Your task to perform on an android device: set default search engine in the chrome app Image 0: 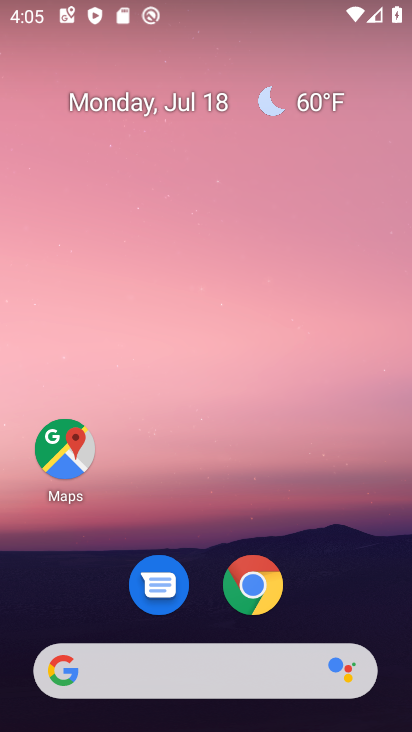
Step 0: click (273, 580)
Your task to perform on an android device: set default search engine in the chrome app Image 1: 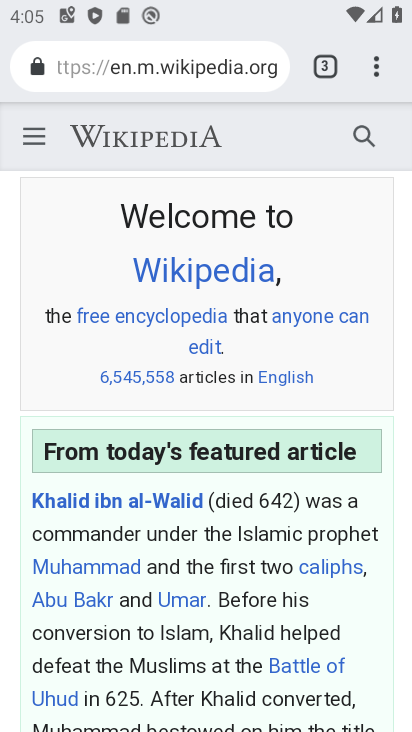
Step 1: click (379, 62)
Your task to perform on an android device: set default search engine in the chrome app Image 2: 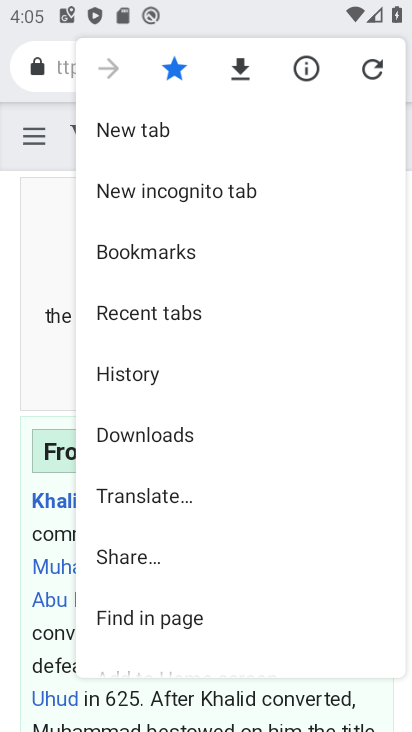
Step 2: drag from (226, 553) to (272, 178)
Your task to perform on an android device: set default search engine in the chrome app Image 3: 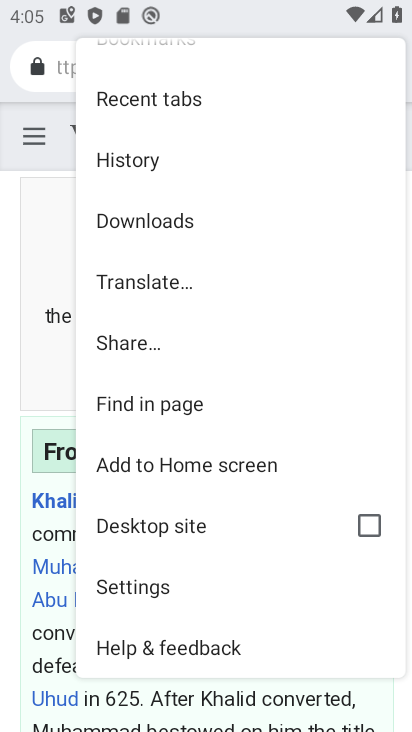
Step 3: click (160, 582)
Your task to perform on an android device: set default search engine in the chrome app Image 4: 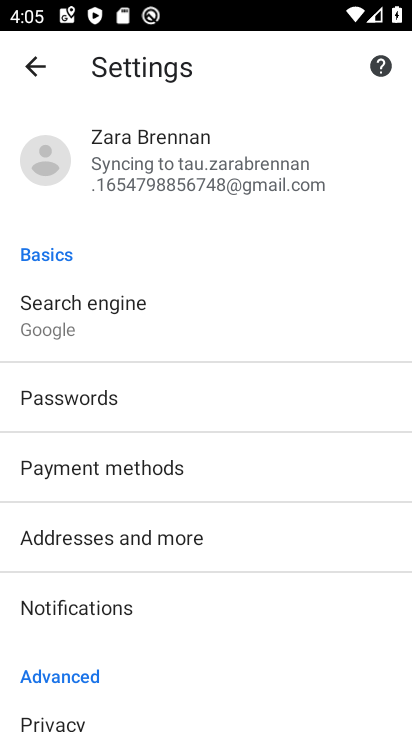
Step 4: click (121, 307)
Your task to perform on an android device: set default search engine in the chrome app Image 5: 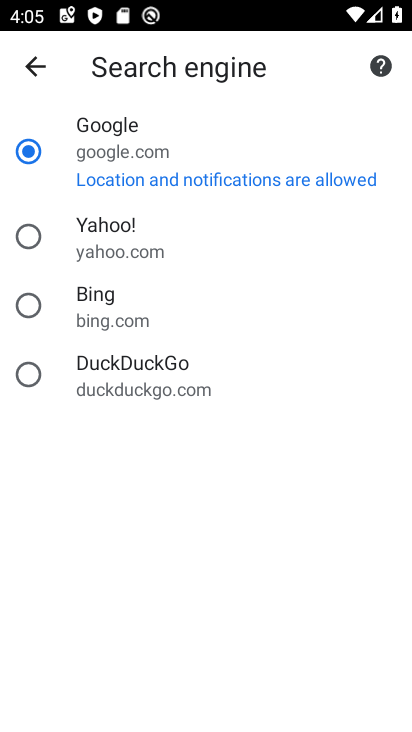
Step 5: task complete